Your task to perform on an android device: change notification settings in the gmail app Image 0: 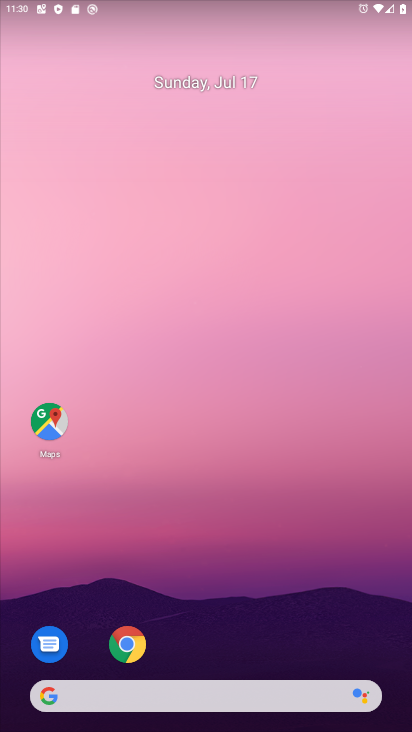
Step 0: click (281, 50)
Your task to perform on an android device: change notification settings in the gmail app Image 1: 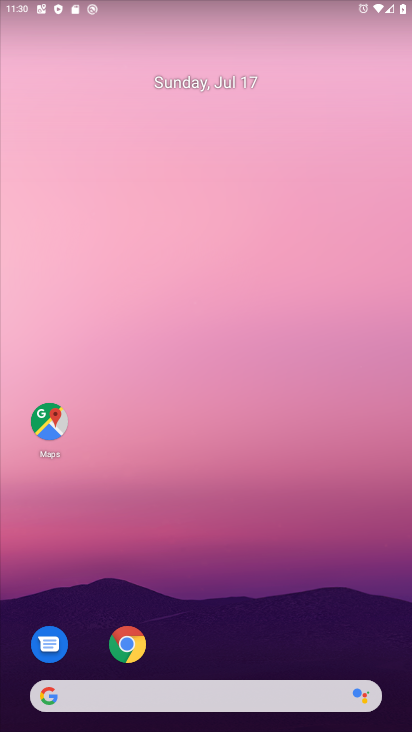
Step 1: drag from (339, 646) to (348, 43)
Your task to perform on an android device: change notification settings in the gmail app Image 2: 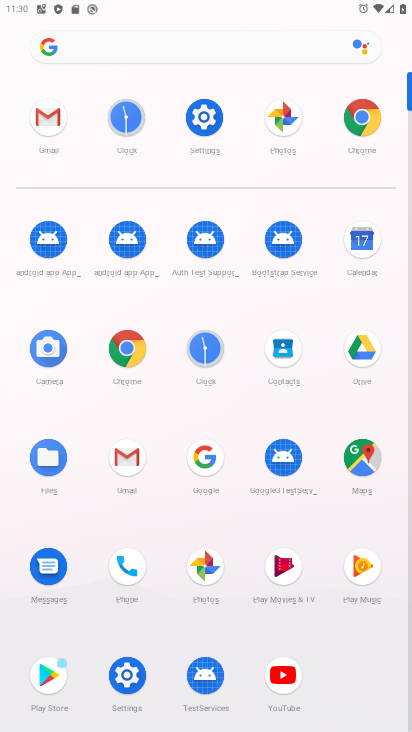
Step 2: click (130, 459)
Your task to perform on an android device: change notification settings in the gmail app Image 3: 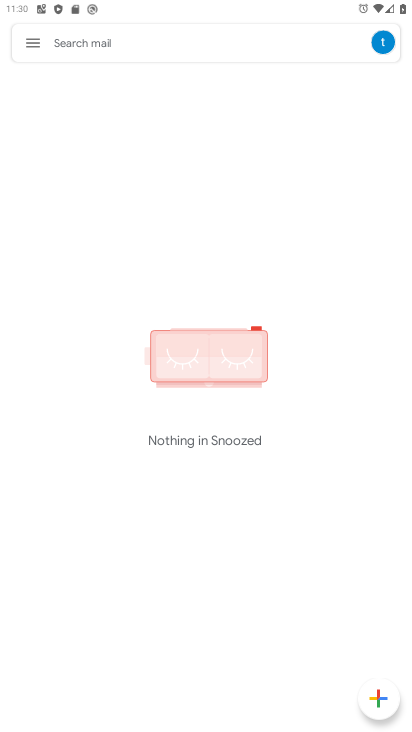
Step 3: click (35, 44)
Your task to perform on an android device: change notification settings in the gmail app Image 4: 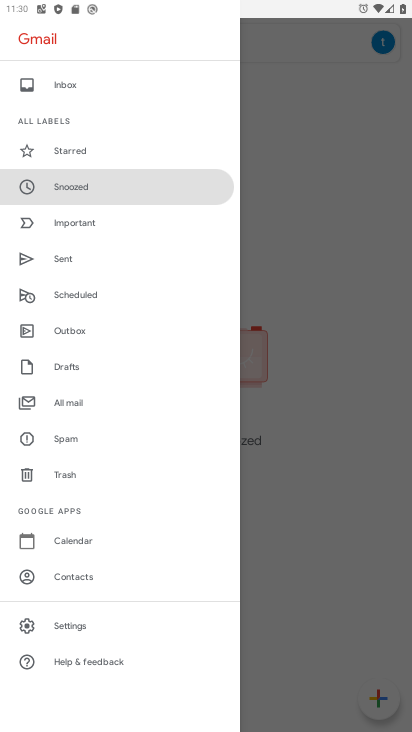
Step 4: click (81, 622)
Your task to perform on an android device: change notification settings in the gmail app Image 5: 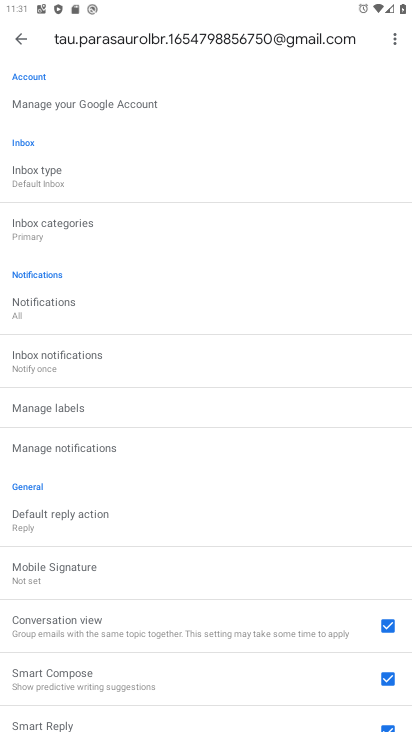
Step 5: click (98, 441)
Your task to perform on an android device: change notification settings in the gmail app Image 6: 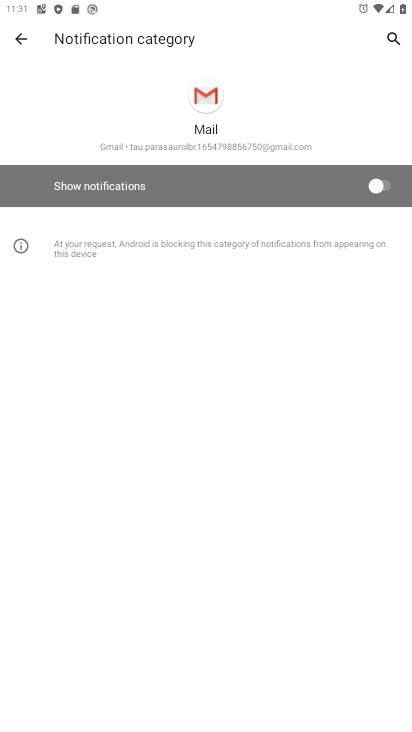
Step 6: click (386, 179)
Your task to perform on an android device: change notification settings in the gmail app Image 7: 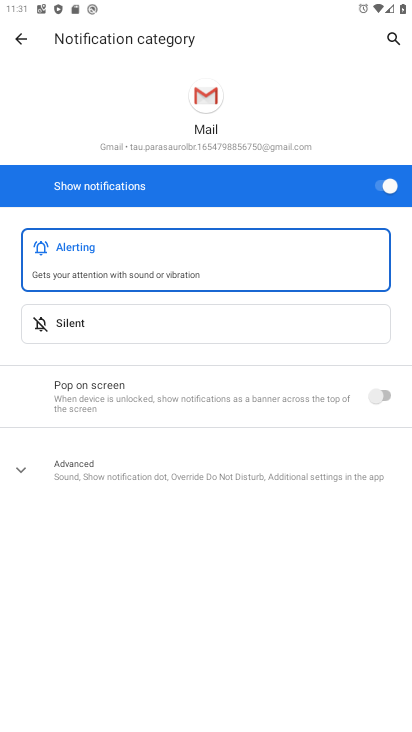
Step 7: task complete